Your task to perform on an android device: Go to internet settings Image 0: 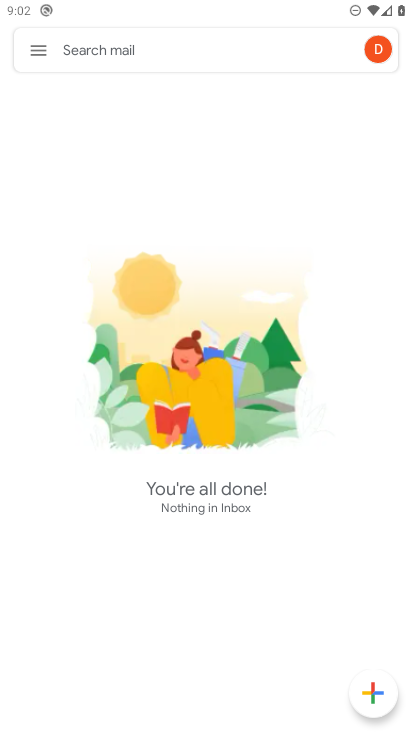
Step 0: press home button
Your task to perform on an android device: Go to internet settings Image 1: 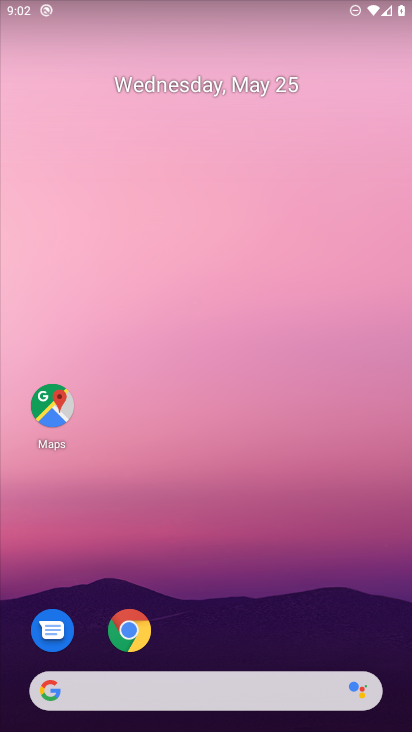
Step 1: drag from (186, 686) to (255, 200)
Your task to perform on an android device: Go to internet settings Image 2: 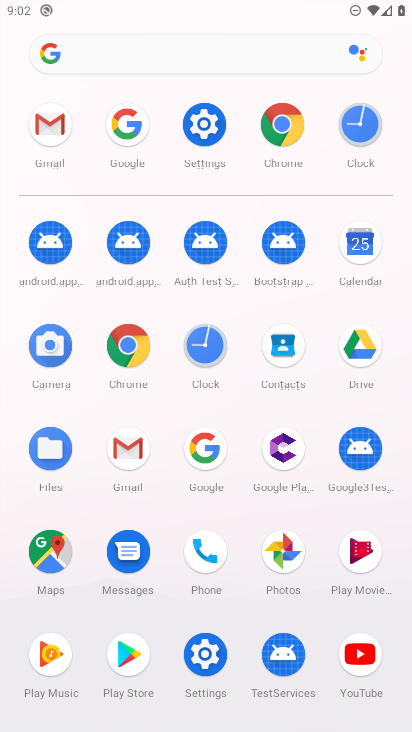
Step 2: click (199, 137)
Your task to perform on an android device: Go to internet settings Image 3: 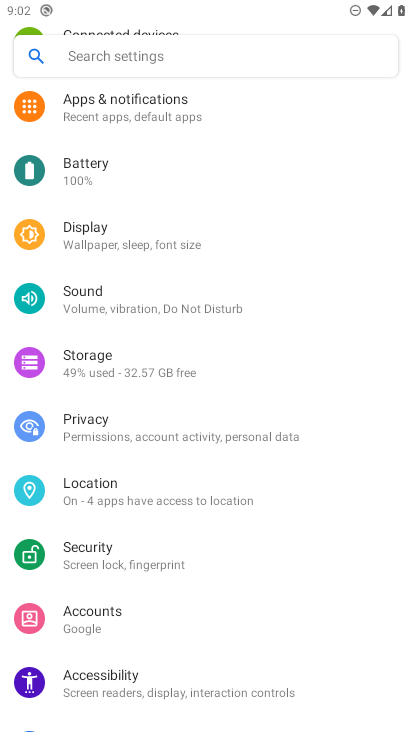
Step 3: drag from (171, 102) to (154, 526)
Your task to perform on an android device: Go to internet settings Image 4: 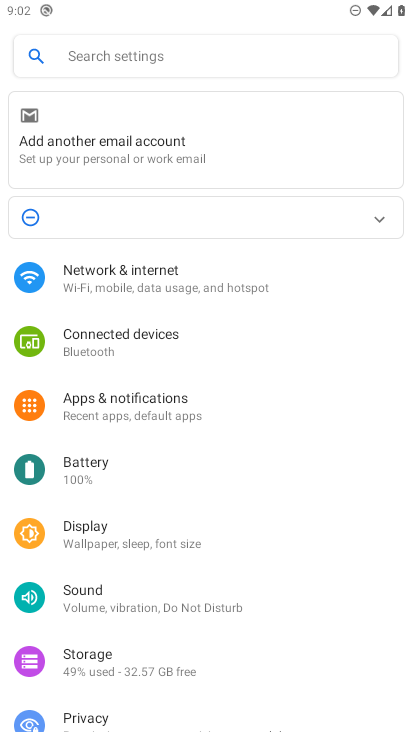
Step 4: click (103, 273)
Your task to perform on an android device: Go to internet settings Image 5: 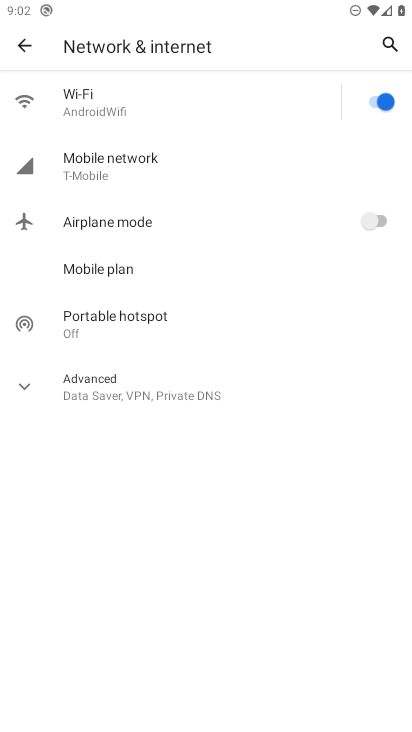
Step 5: click (90, 170)
Your task to perform on an android device: Go to internet settings Image 6: 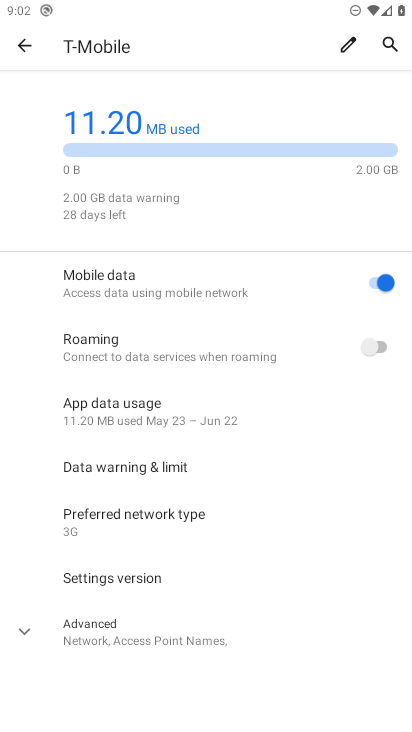
Step 6: click (81, 615)
Your task to perform on an android device: Go to internet settings Image 7: 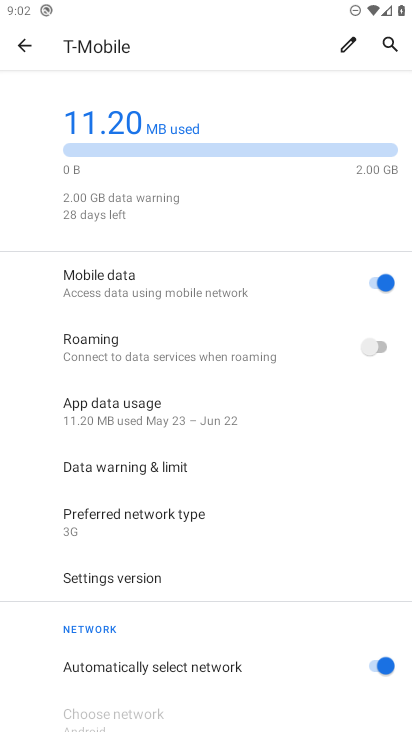
Step 7: task complete